Your task to perform on an android device: Go to Google maps Image 0: 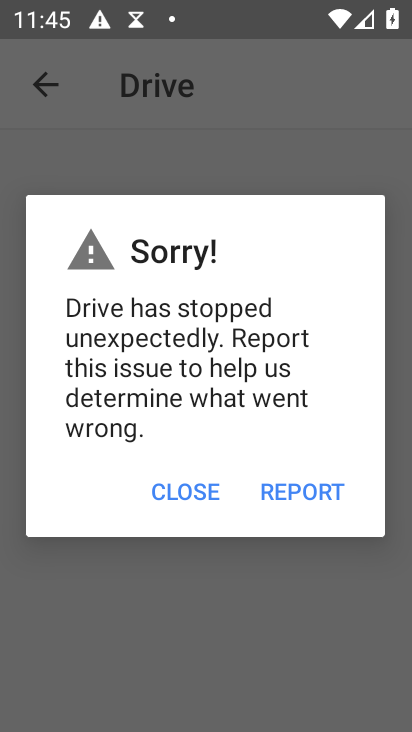
Step 0: press home button
Your task to perform on an android device: Go to Google maps Image 1: 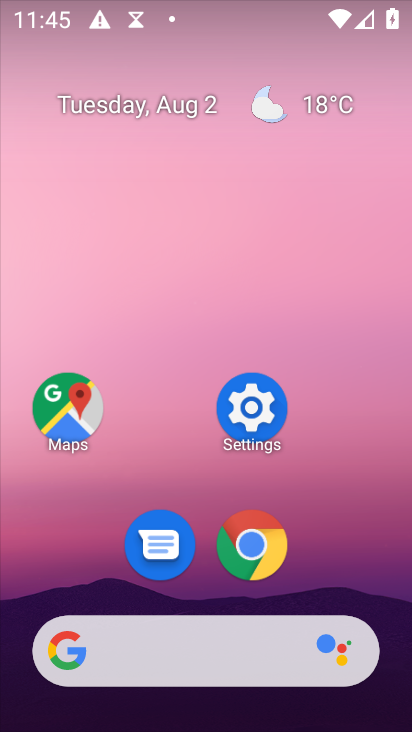
Step 1: click (81, 408)
Your task to perform on an android device: Go to Google maps Image 2: 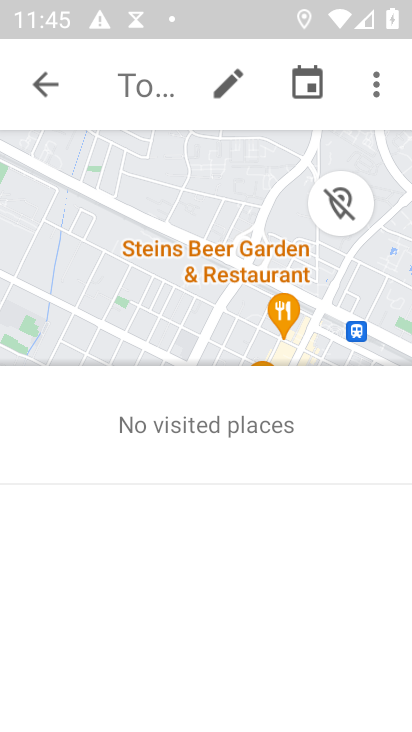
Step 2: click (55, 83)
Your task to perform on an android device: Go to Google maps Image 3: 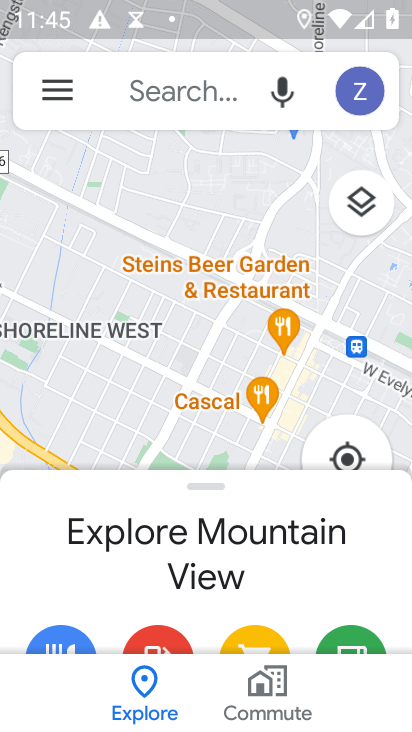
Step 3: task complete